Your task to perform on an android device: open a bookmark in the chrome app Image 0: 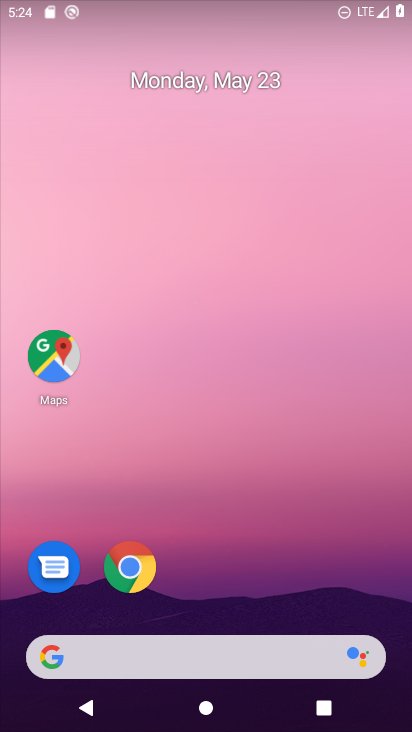
Step 0: click (130, 567)
Your task to perform on an android device: open a bookmark in the chrome app Image 1: 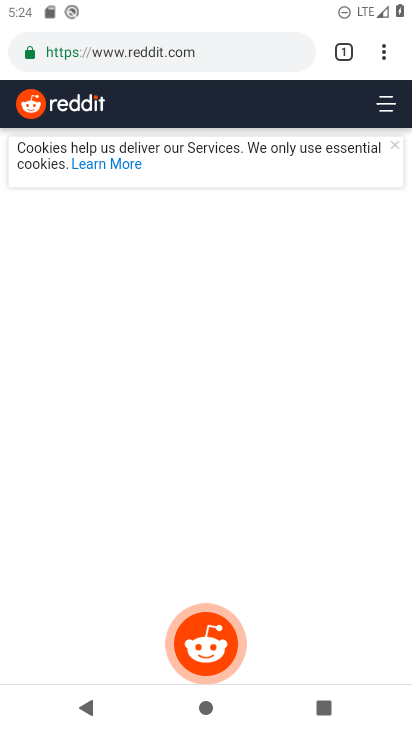
Step 1: click (386, 52)
Your task to perform on an android device: open a bookmark in the chrome app Image 2: 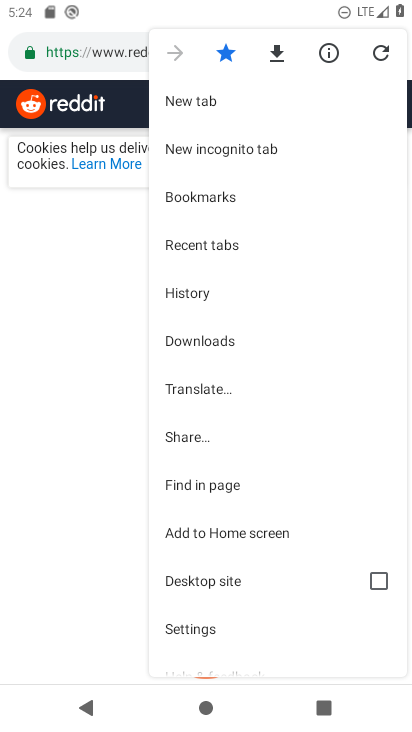
Step 2: click (224, 201)
Your task to perform on an android device: open a bookmark in the chrome app Image 3: 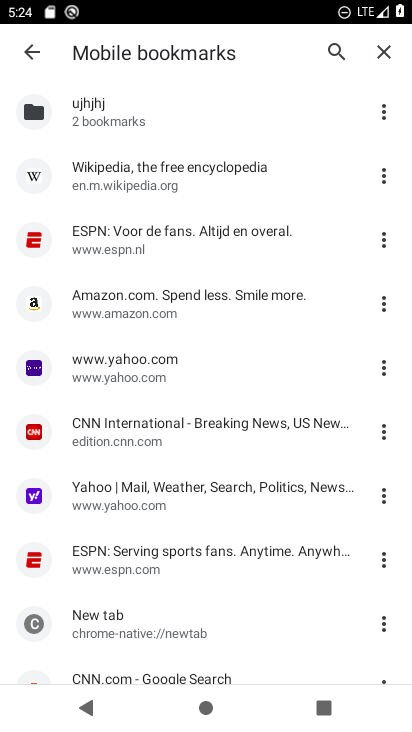
Step 3: task complete